Your task to perform on an android device: Open the calendar app, open the side menu, and click the "Day" option Image 0: 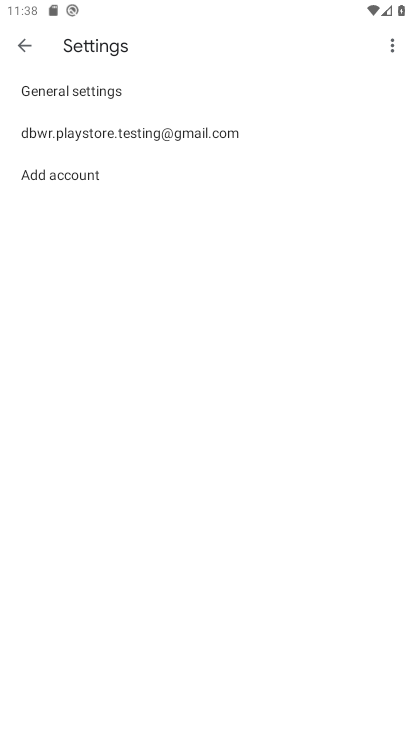
Step 0: press home button
Your task to perform on an android device: Open the calendar app, open the side menu, and click the "Day" option Image 1: 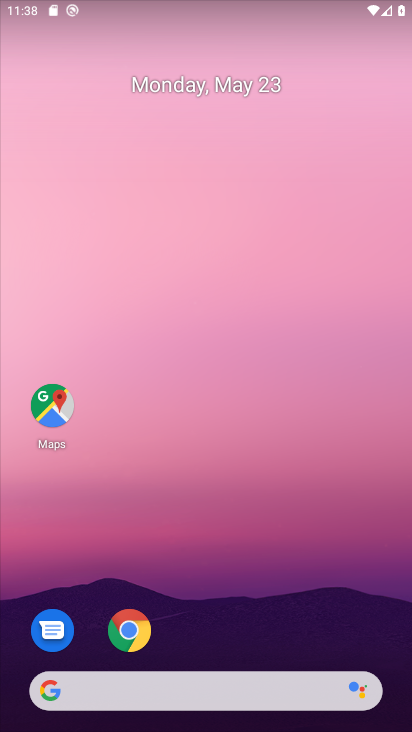
Step 1: drag from (222, 554) to (244, 2)
Your task to perform on an android device: Open the calendar app, open the side menu, and click the "Day" option Image 2: 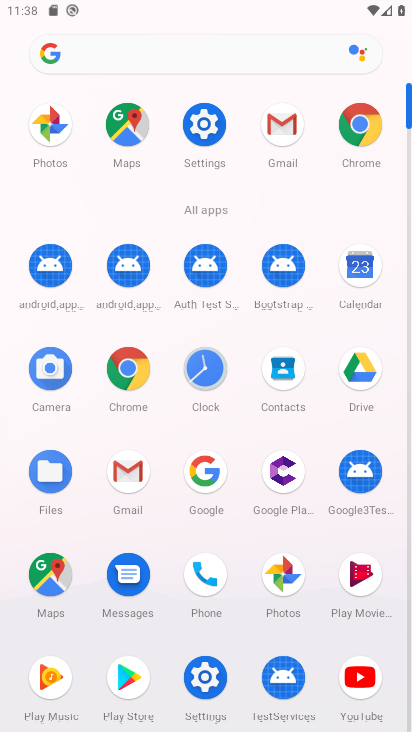
Step 2: click (361, 270)
Your task to perform on an android device: Open the calendar app, open the side menu, and click the "Day" option Image 3: 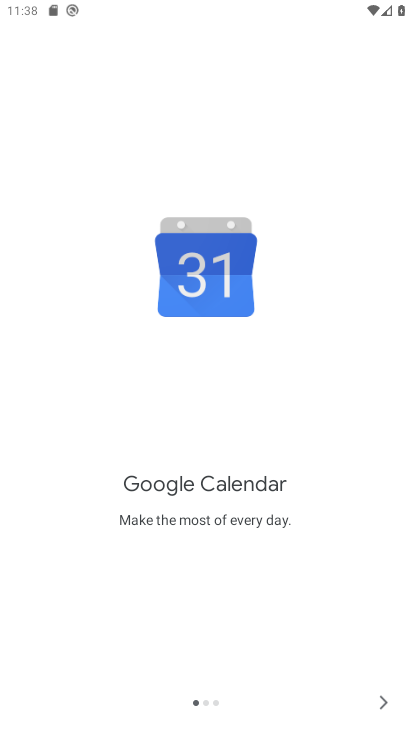
Step 3: click (378, 707)
Your task to perform on an android device: Open the calendar app, open the side menu, and click the "Day" option Image 4: 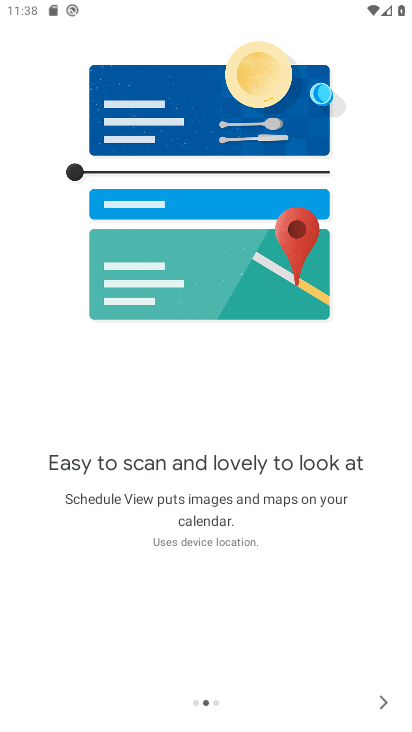
Step 4: click (388, 701)
Your task to perform on an android device: Open the calendar app, open the side menu, and click the "Day" option Image 5: 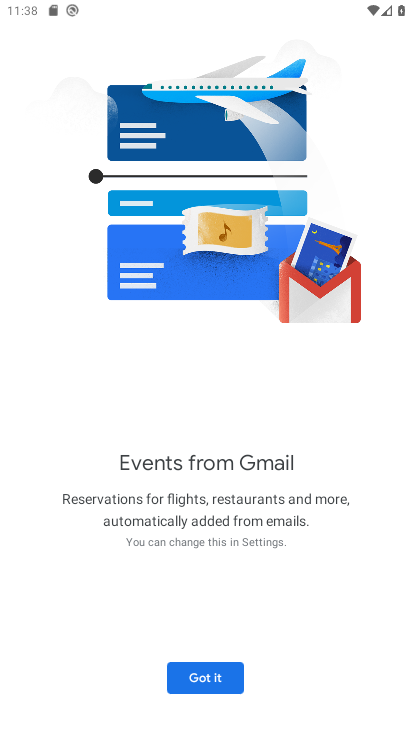
Step 5: click (205, 679)
Your task to perform on an android device: Open the calendar app, open the side menu, and click the "Day" option Image 6: 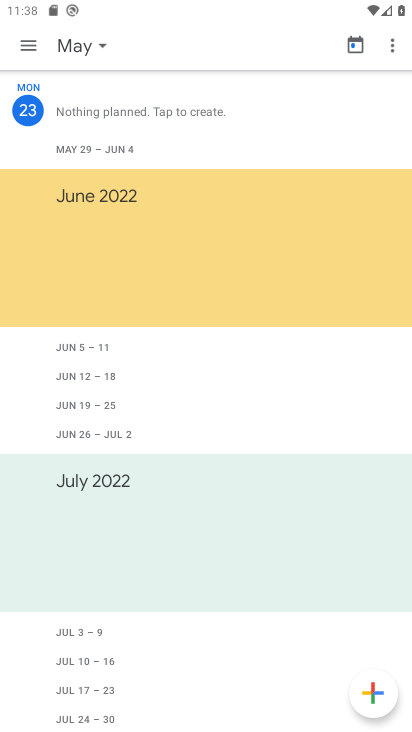
Step 6: click (30, 41)
Your task to perform on an android device: Open the calendar app, open the side menu, and click the "Day" option Image 7: 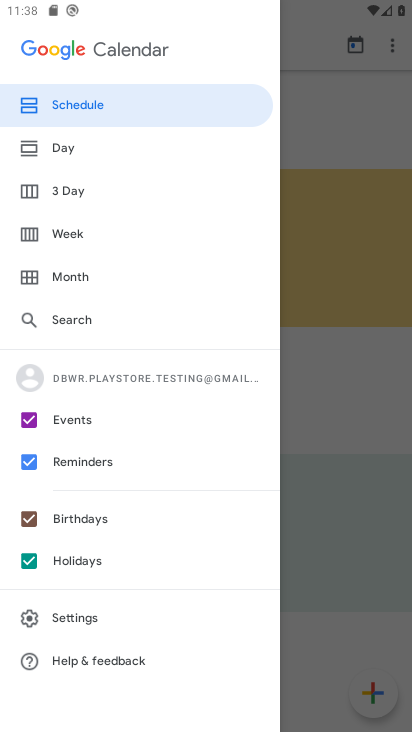
Step 7: click (76, 157)
Your task to perform on an android device: Open the calendar app, open the side menu, and click the "Day" option Image 8: 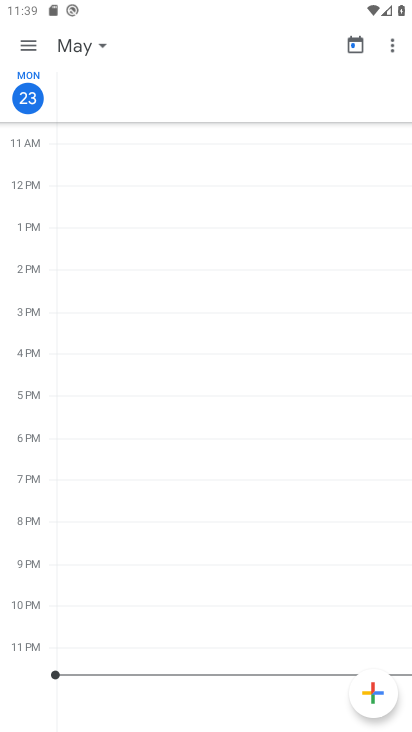
Step 8: task complete